Your task to perform on an android device: check google app version Image 0: 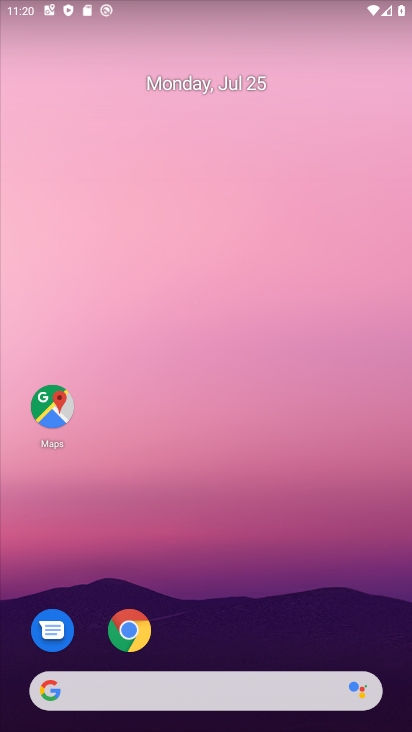
Step 0: press home button
Your task to perform on an android device: check google app version Image 1: 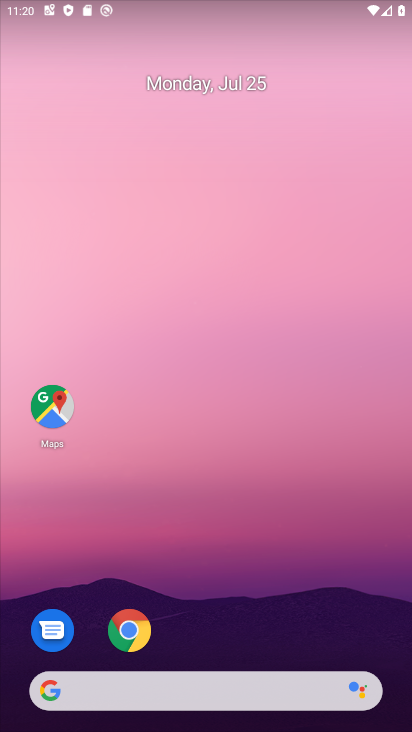
Step 1: drag from (309, 627) to (349, 115)
Your task to perform on an android device: check google app version Image 2: 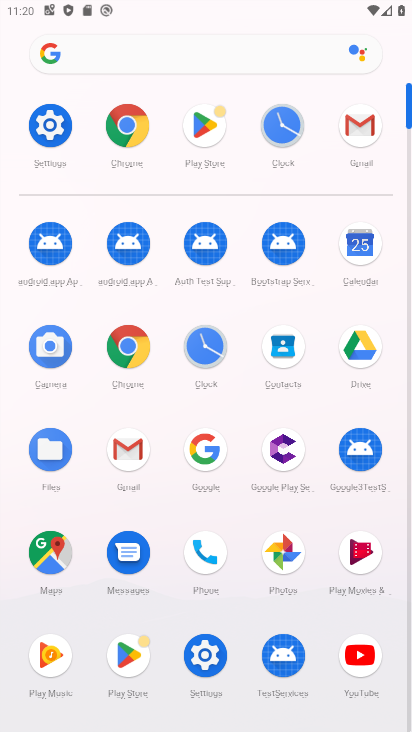
Step 2: click (203, 456)
Your task to perform on an android device: check google app version Image 3: 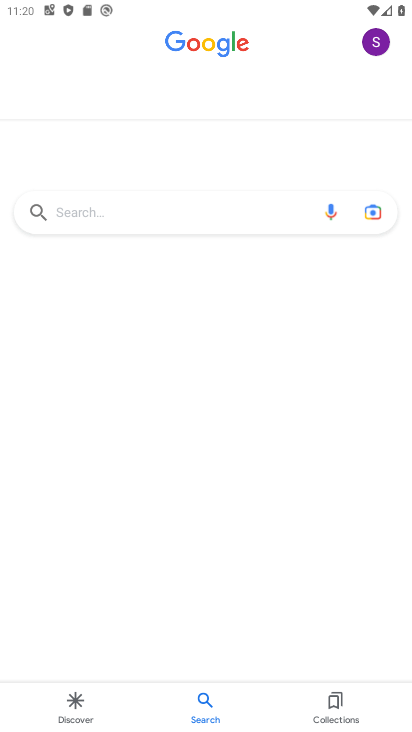
Step 3: click (374, 46)
Your task to perform on an android device: check google app version Image 4: 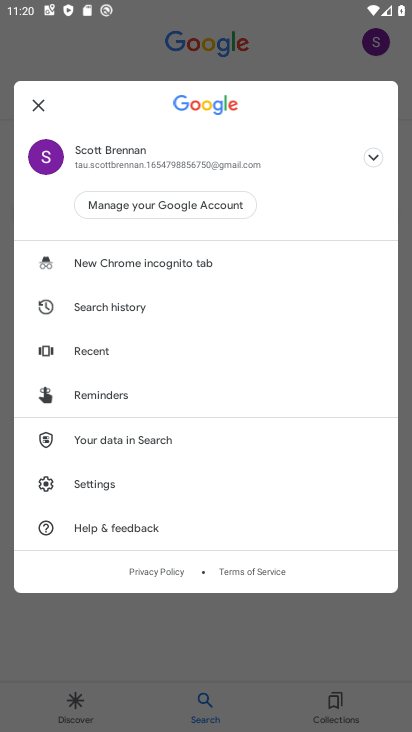
Step 4: click (112, 482)
Your task to perform on an android device: check google app version Image 5: 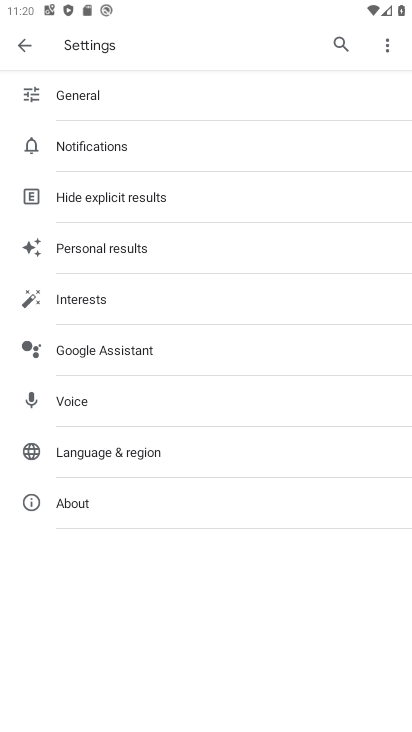
Step 5: click (101, 499)
Your task to perform on an android device: check google app version Image 6: 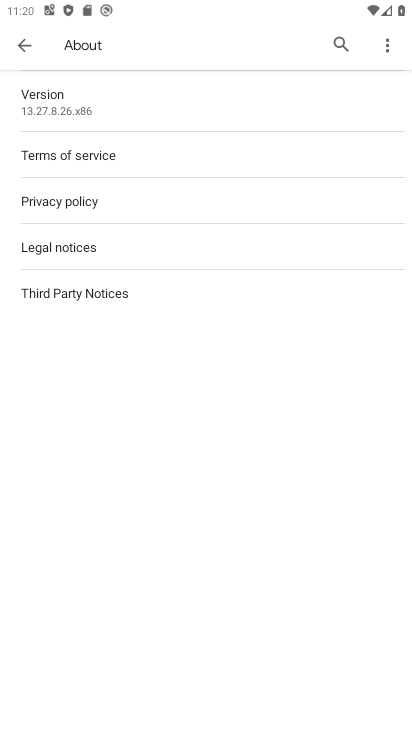
Step 6: task complete